Your task to perform on an android device: turn off improve location accuracy Image 0: 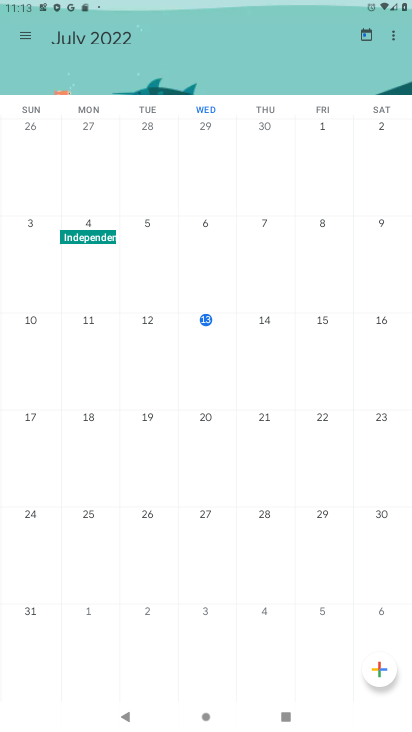
Step 0: press home button
Your task to perform on an android device: turn off improve location accuracy Image 1: 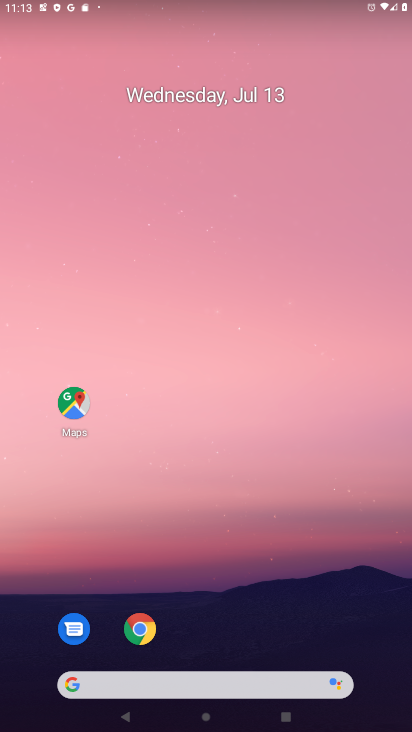
Step 1: drag from (243, 608) to (254, 138)
Your task to perform on an android device: turn off improve location accuracy Image 2: 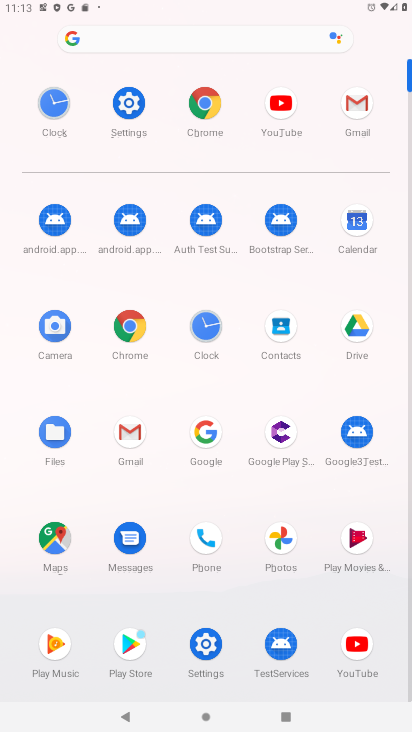
Step 2: click (135, 134)
Your task to perform on an android device: turn off improve location accuracy Image 3: 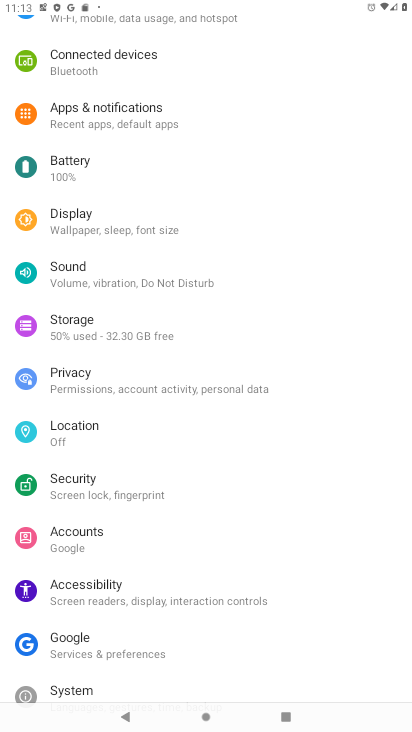
Step 3: click (80, 431)
Your task to perform on an android device: turn off improve location accuracy Image 4: 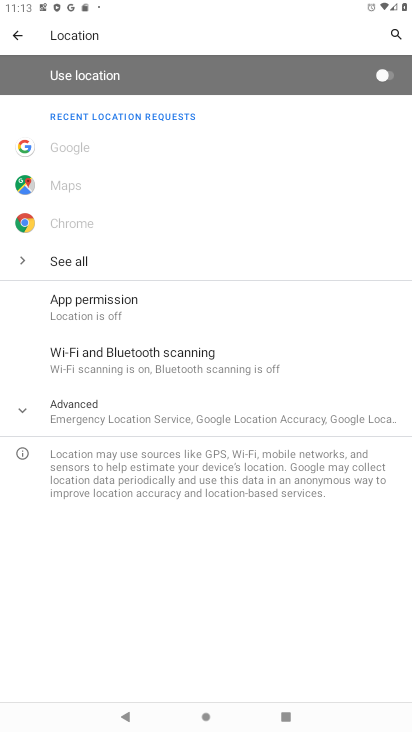
Step 4: click (76, 404)
Your task to perform on an android device: turn off improve location accuracy Image 5: 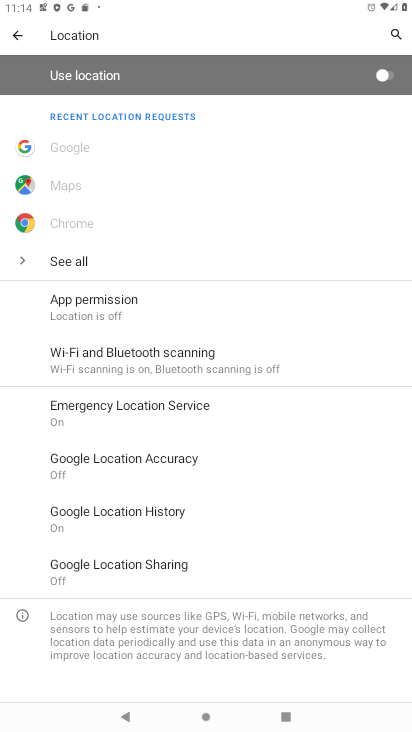
Step 5: click (188, 450)
Your task to perform on an android device: turn off improve location accuracy Image 6: 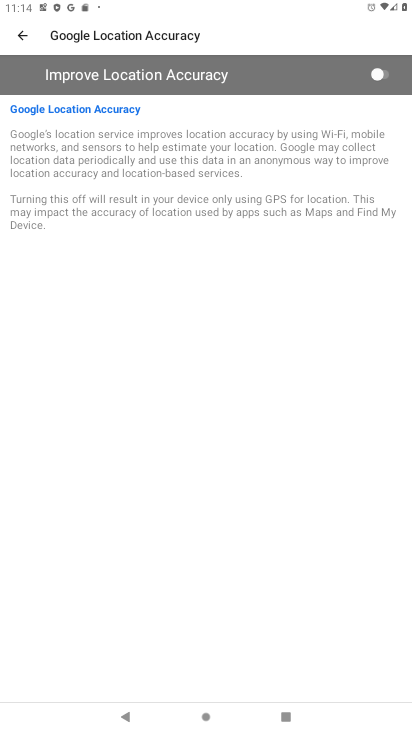
Step 6: task complete